Your task to perform on an android device: check storage Image 0: 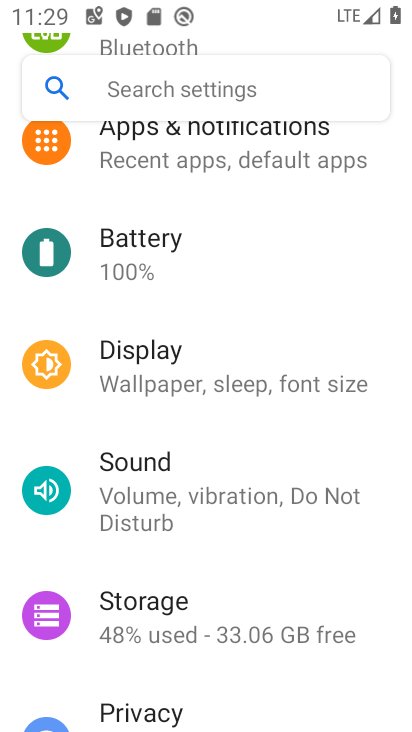
Step 0: click (212, 623)
Your task to perform on an android device: check storage Image 1: 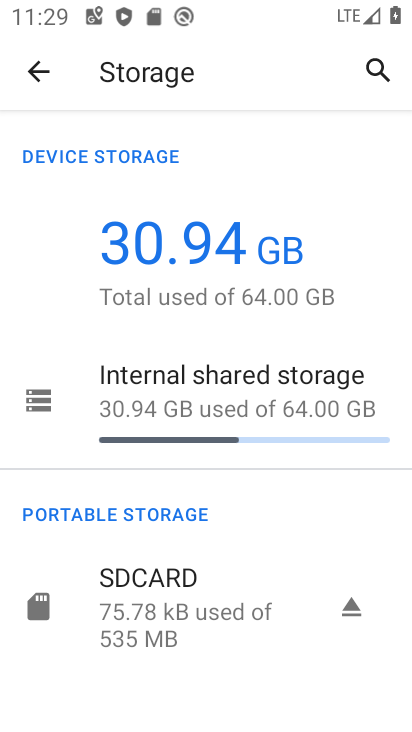
Step 1: task complete